Your task to perform on an android device: open chrome and create a bookmark for the current page Image 0: 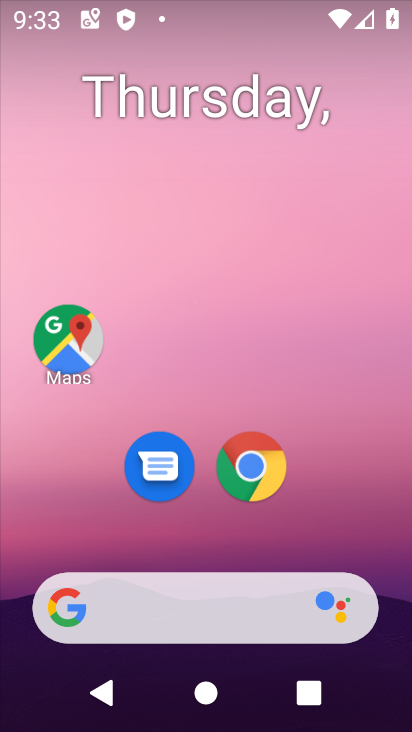
Step 0: click (280, 475)
Your task to perform on an android device: open chrome and create a bookmark for the current page Image 1: 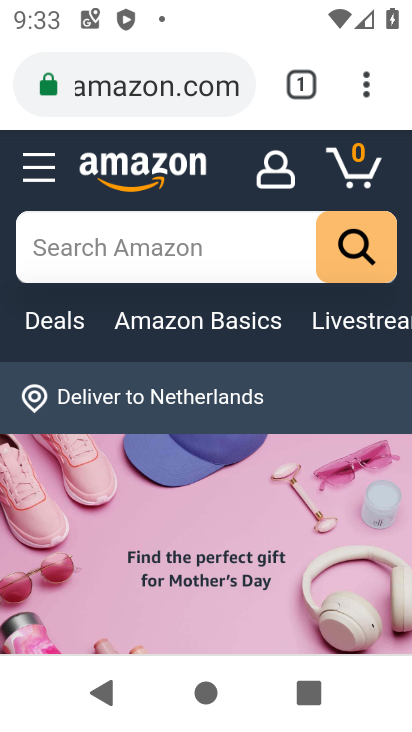
Step 1: click (179, 89)
Your task to perform on an android device: open chrome and create a bookmark for the current page Image 2: 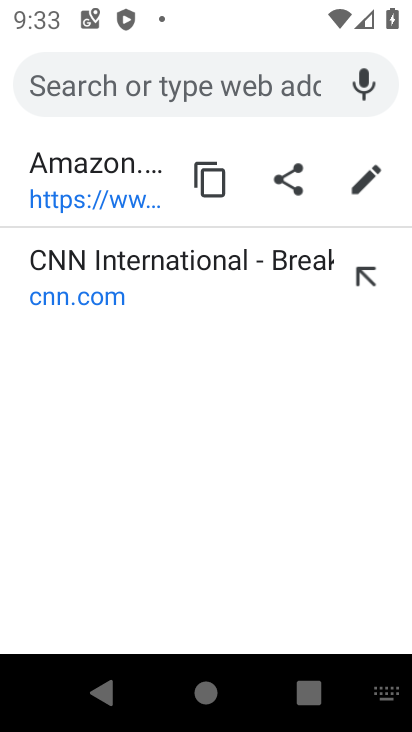
Step 2: type "cricbuss"
Your task to perform on an android device: open chrome and create a bookmark for the current page Image 3: 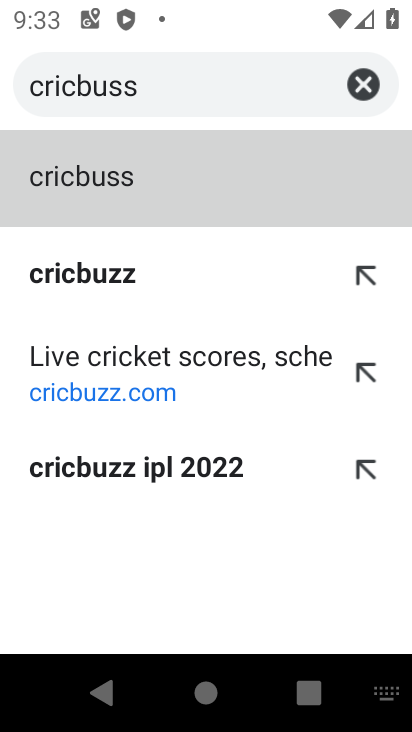
Step 3: click (70, 272)
Your task to perform on an android device: open chrome and create a bookmark for the current page Image 4: 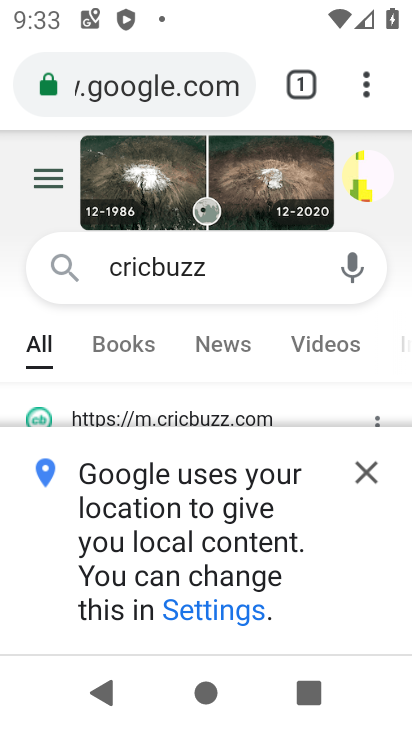
Step 4: click (359, 472)
Your task to perform on an android device: open chrome and create a bookmark for the current page Image 5: 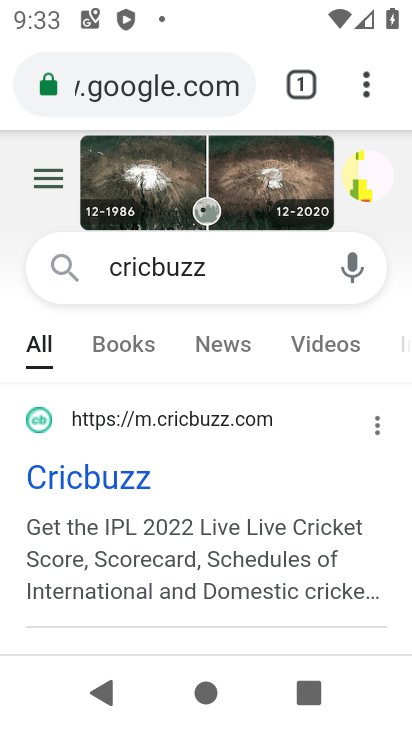
Step 5: click (138, 481)
Your task to perform on an android device: open chrome and create a bookmark for the current page Image 6: 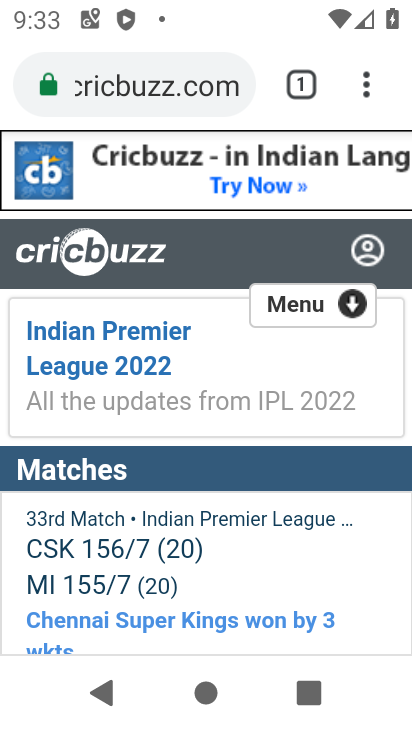
Step 6: task complete